Your task to perform on an android device: Open network settings Image 0: 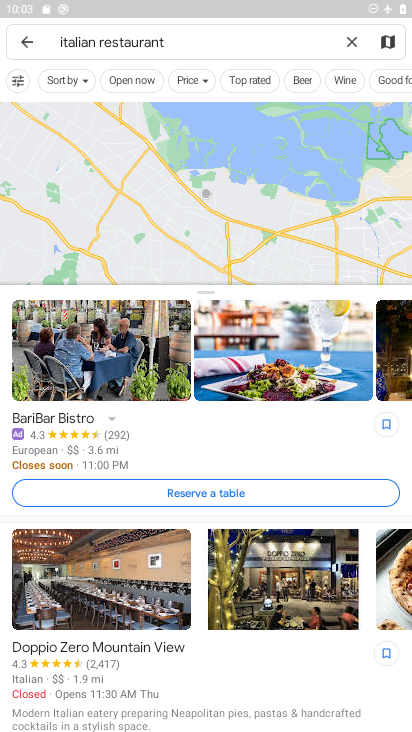
Step 0: press home button
Your task to perform on an android device: Open network settings Image 1: 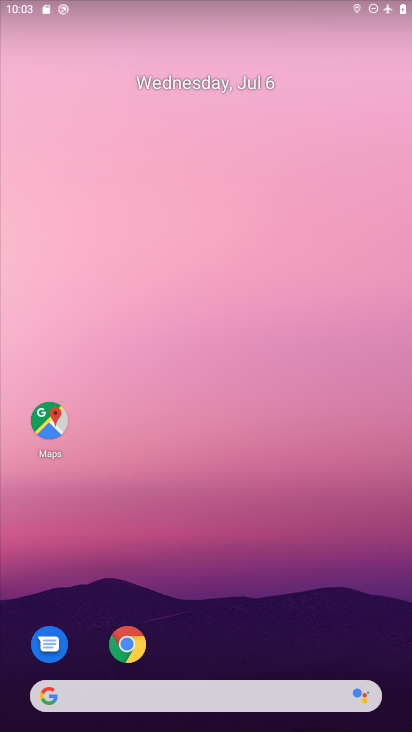
Step 1: drag from (245, 628) to (262, 132)
Your task to perform on an android device: Open network settings Image 2: 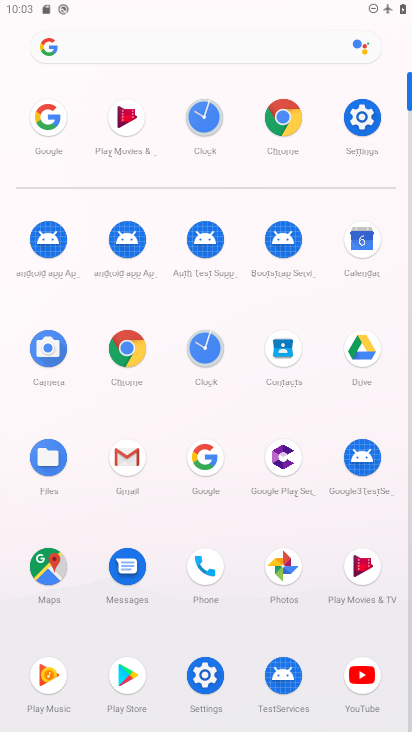
Step 2: click (344, 111)
Your task to perform on an android device: Open network settings Image 3: 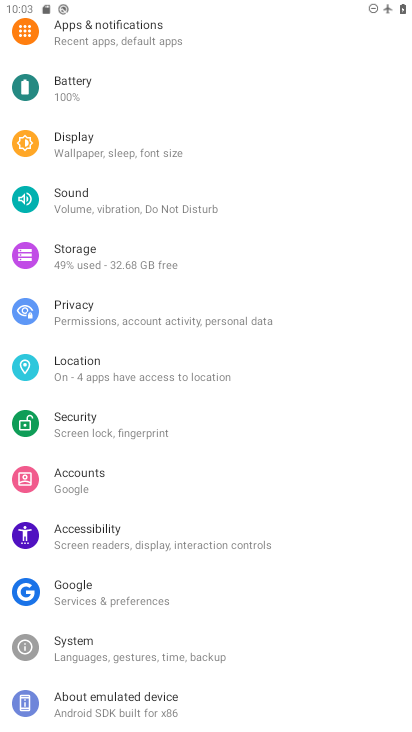
Step 3: drag from (148, 105) to (136, 448)
Your task to perform on an android device: Open network settings Image 4: 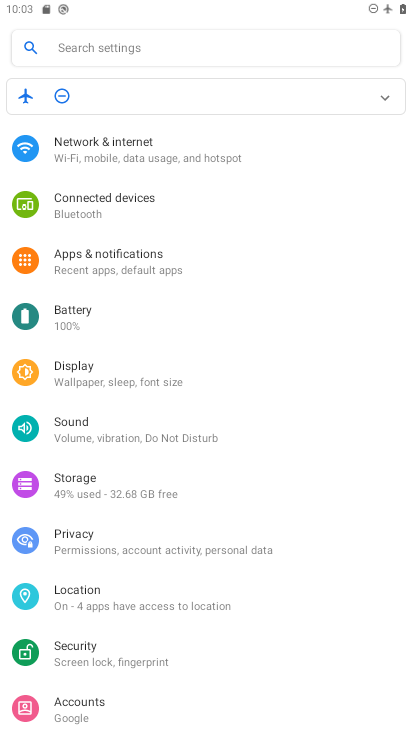
Step 4: click (171, 151)
Your task to perform on an android device: Open network settings Image 5: 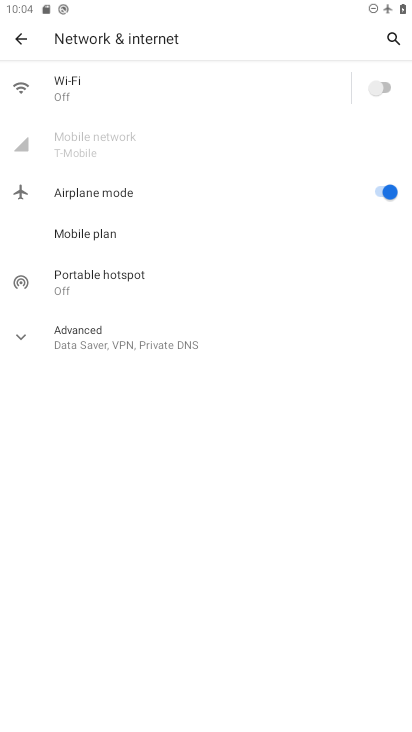
Step 5: task complete